Your task to perform on an android device: Find coffee shops on Maps Image 0: 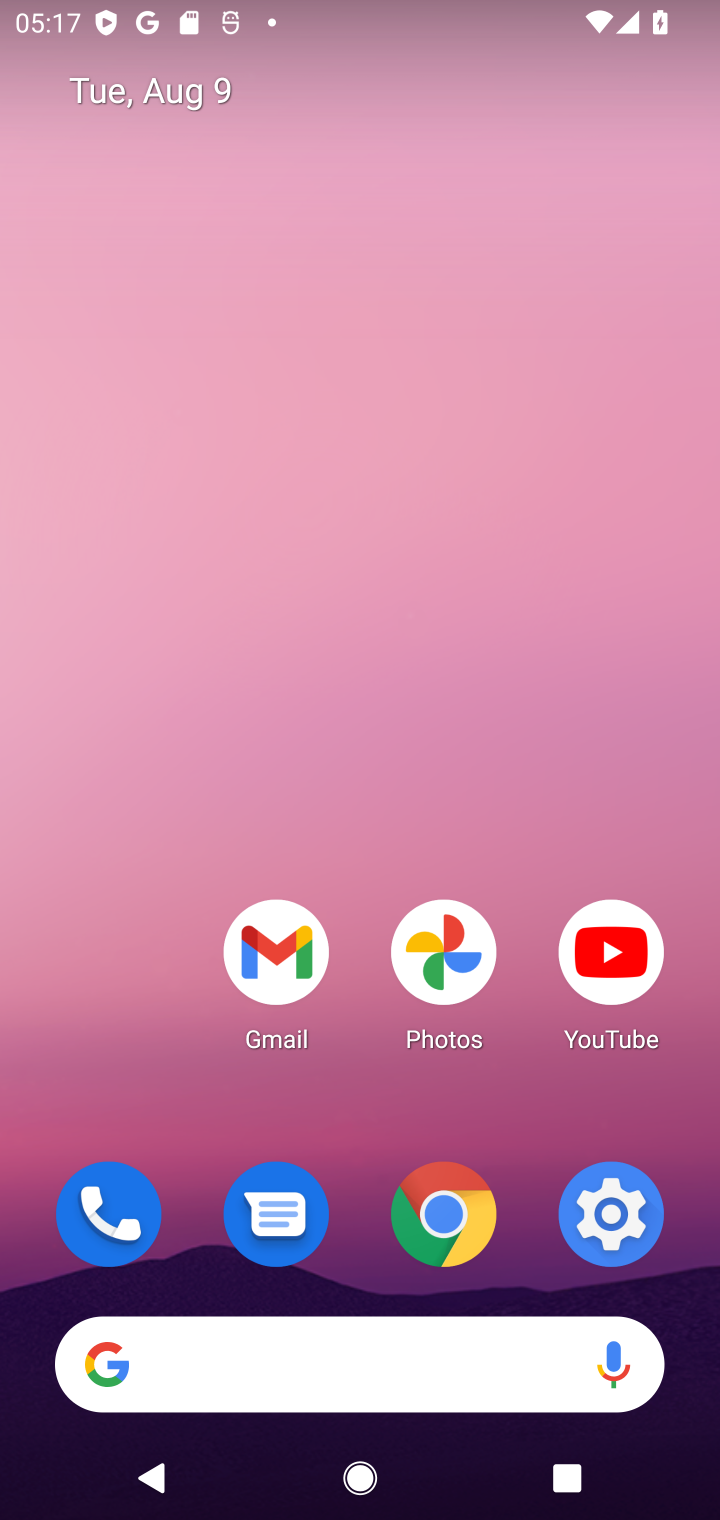
Step 0: drag from (505, 1403) to (175, 370)
Your task to perform on an android device: Find coffee shops on Maps Image 1: 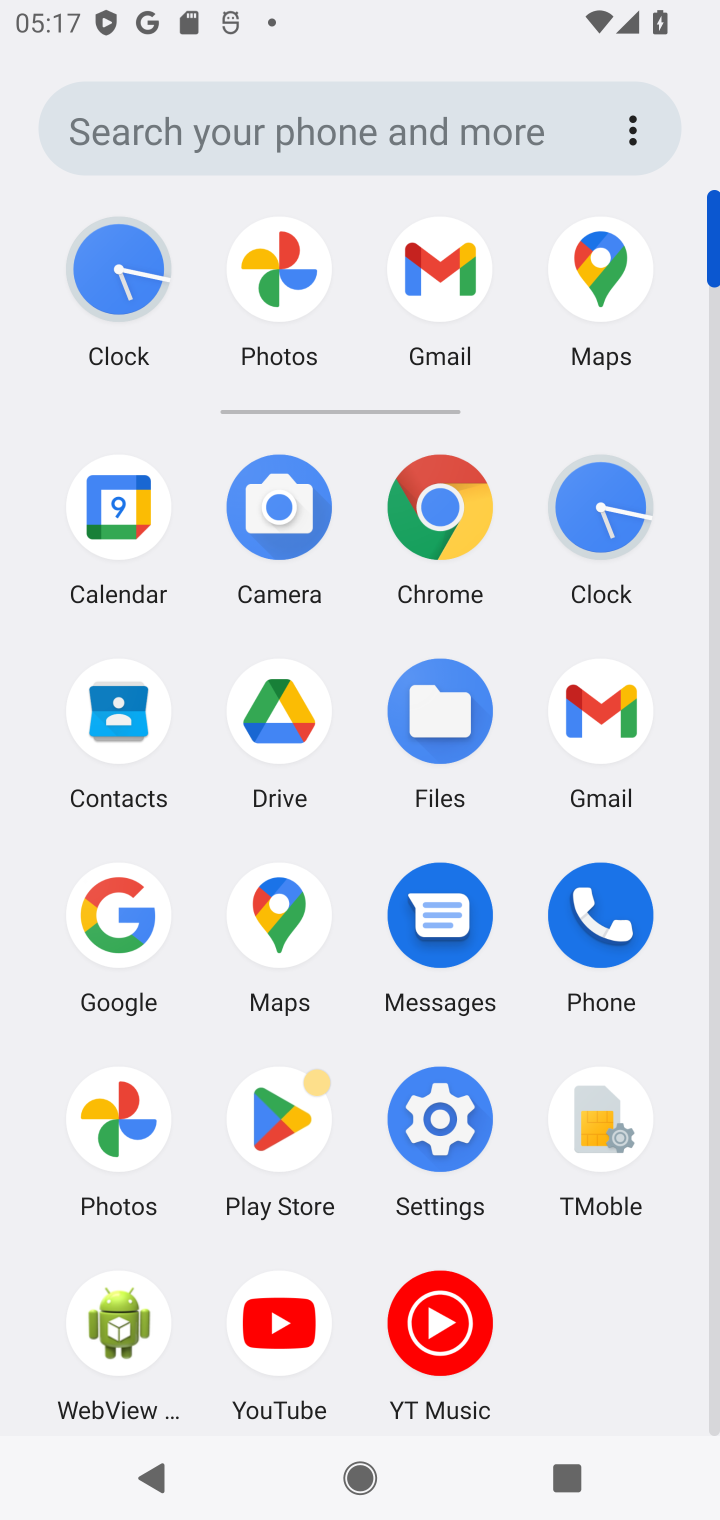
Step 1: click (295, 918)
Your task to perform on an android device: Find coffee shops on Maps Image 2: 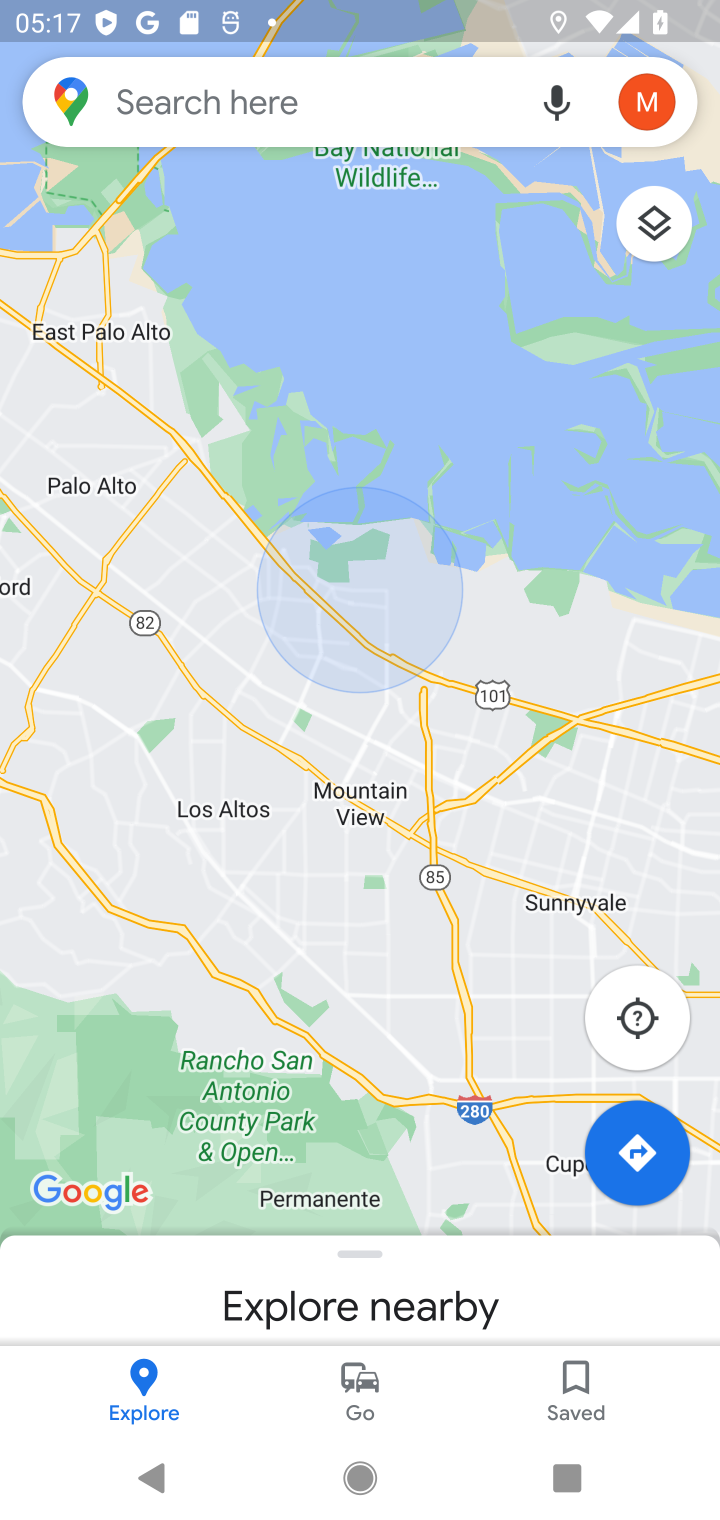
Step 2: click (244, 113)
Your task to perform on an android device: Find coffee shops on Maps Image 3: 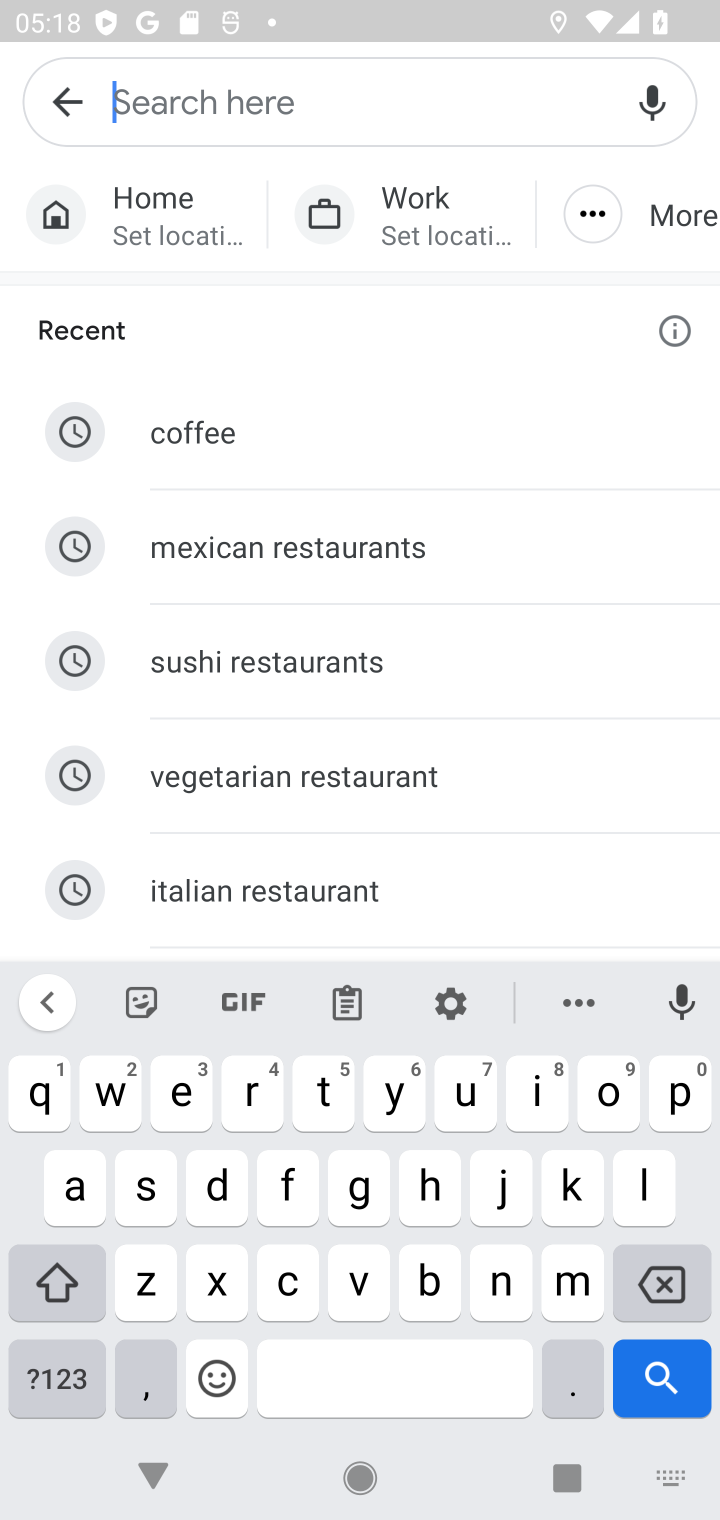
Step 3: click (212, 412)
Your task to perform on an android device: Find coffee shops on Maps Image 4: 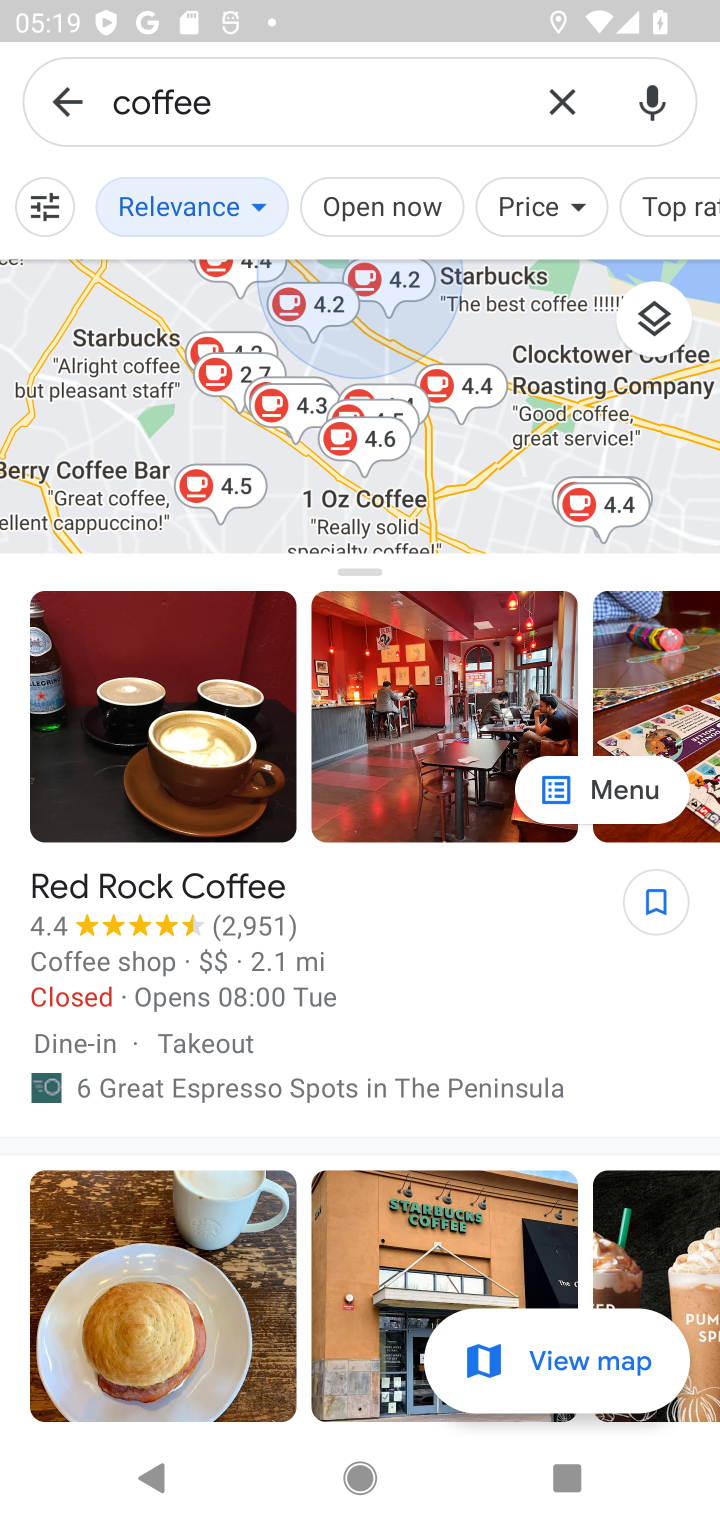
Step 4: task complete